Your task to perform on an android device: delete the emails in spam in the gmail app Image 0: 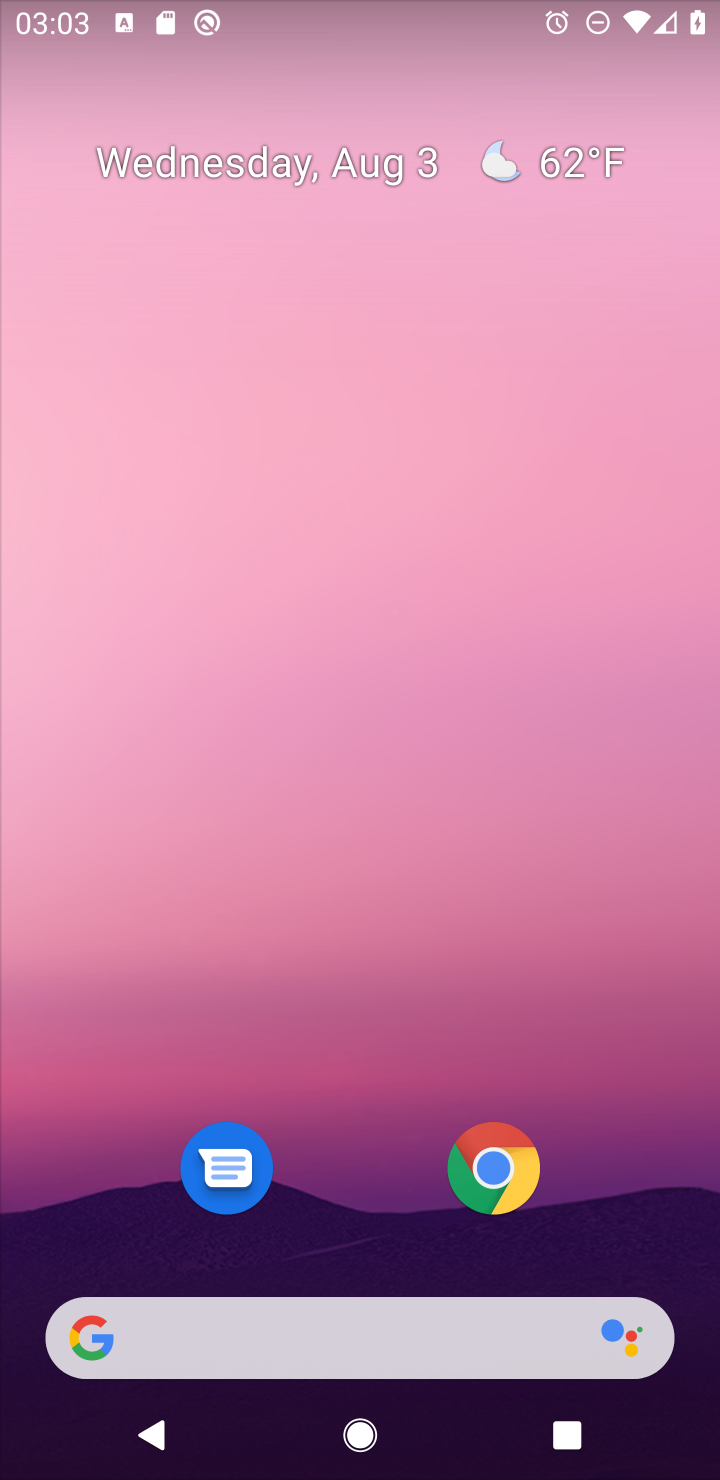
Step 0: drag from (668, 1257) to (615, 303)
Your task to perform on an android device: delete the emails in spam in the gmail app Image 1: 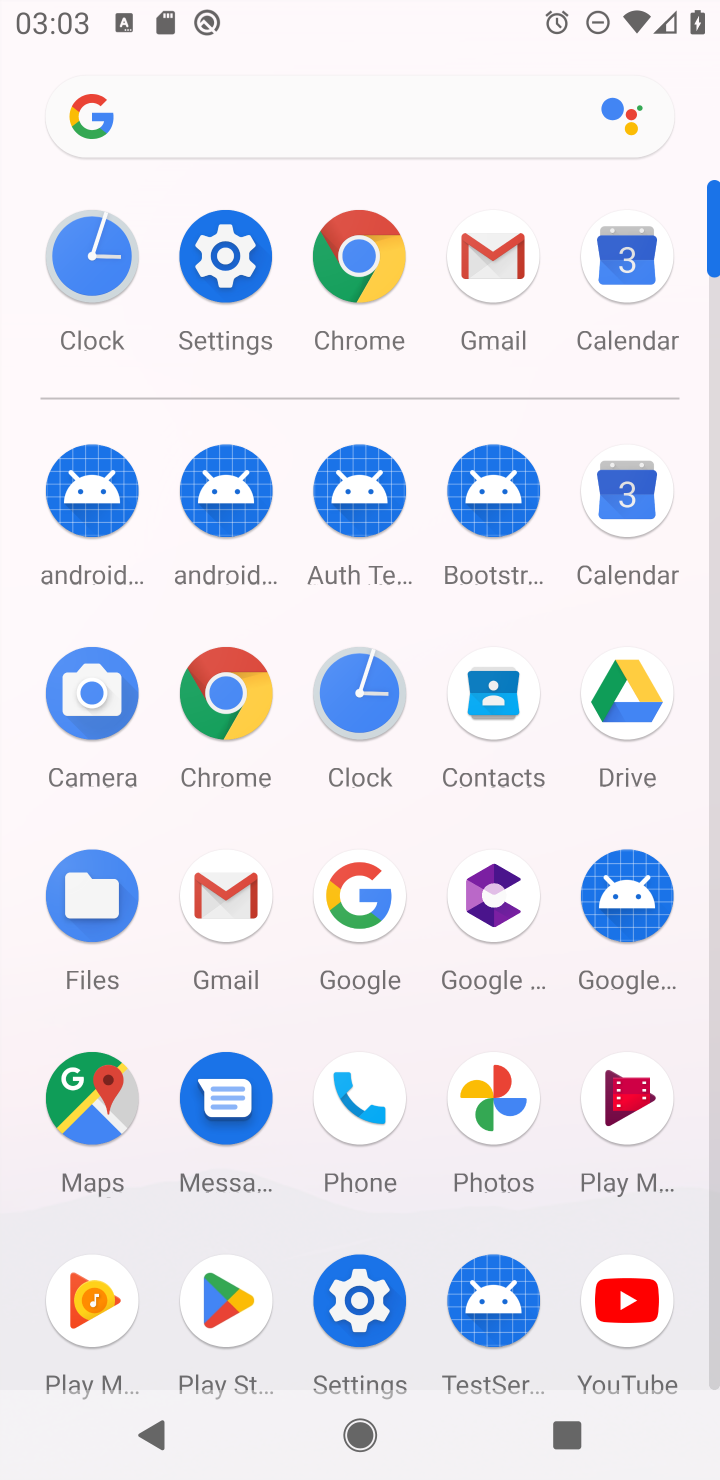
Step 1: click (223, 894)
Your task to perform on an android device: delete the emails in spam in the gmail app Image 2: 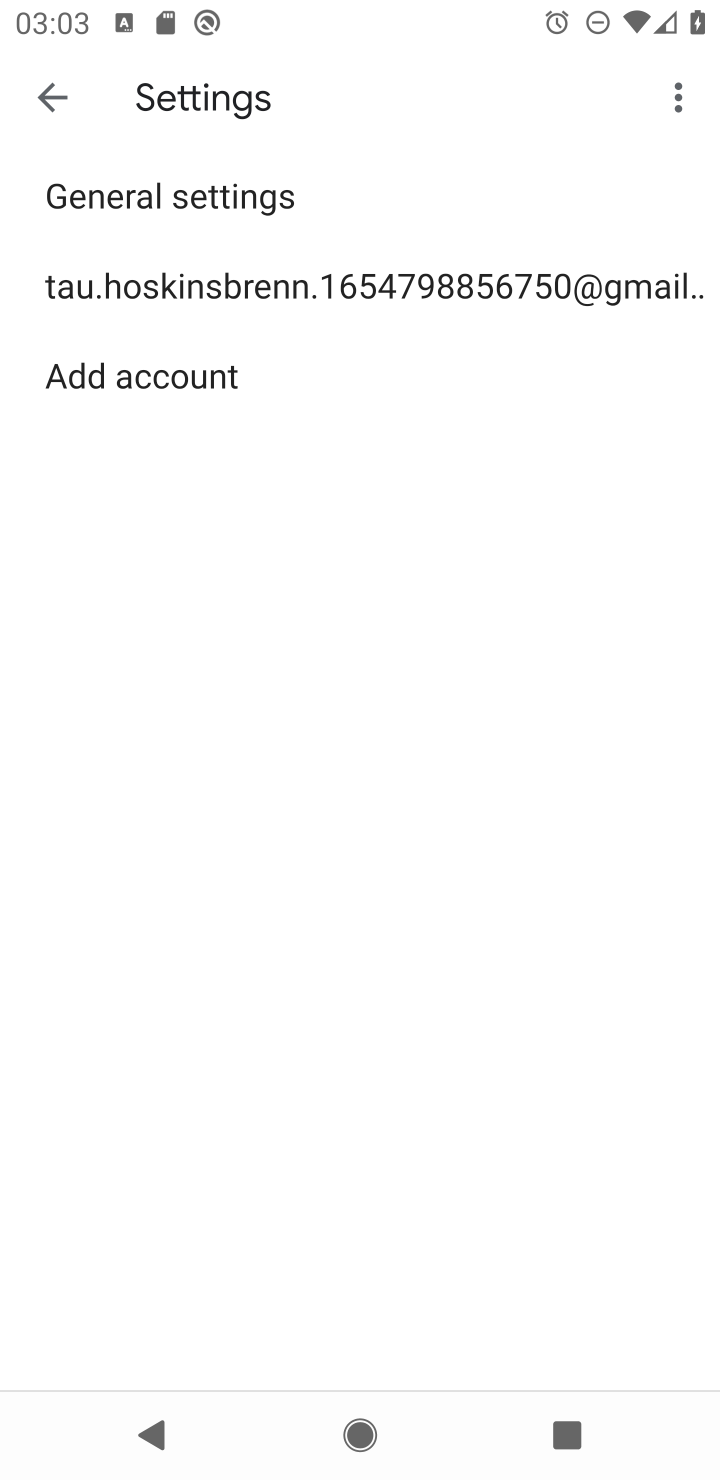
Step 2: press back button
Your task to perform on an android device: delete the emails in spam in the gmail app Image 3: 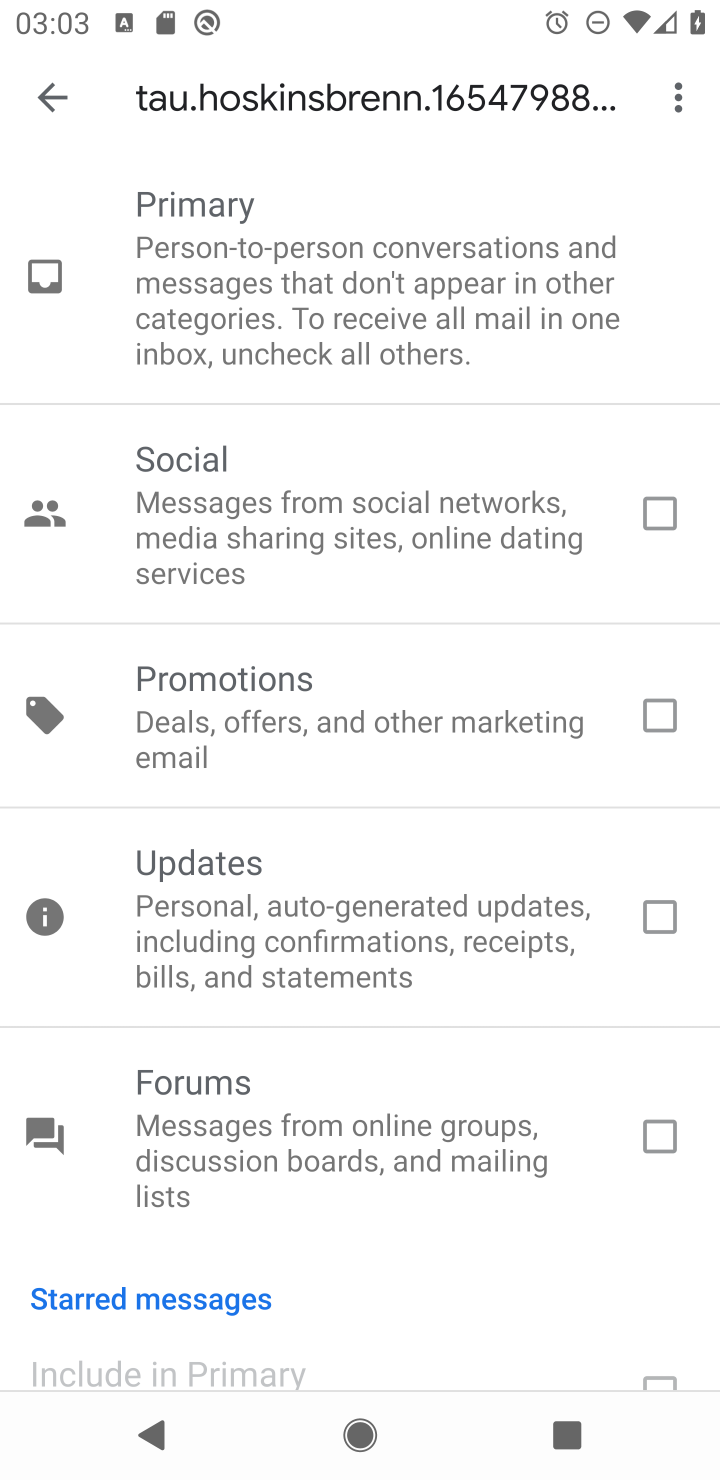
Step 3: press back button
Your task to perform on an android device: delete the emails in spam in the gmail app Image 4: 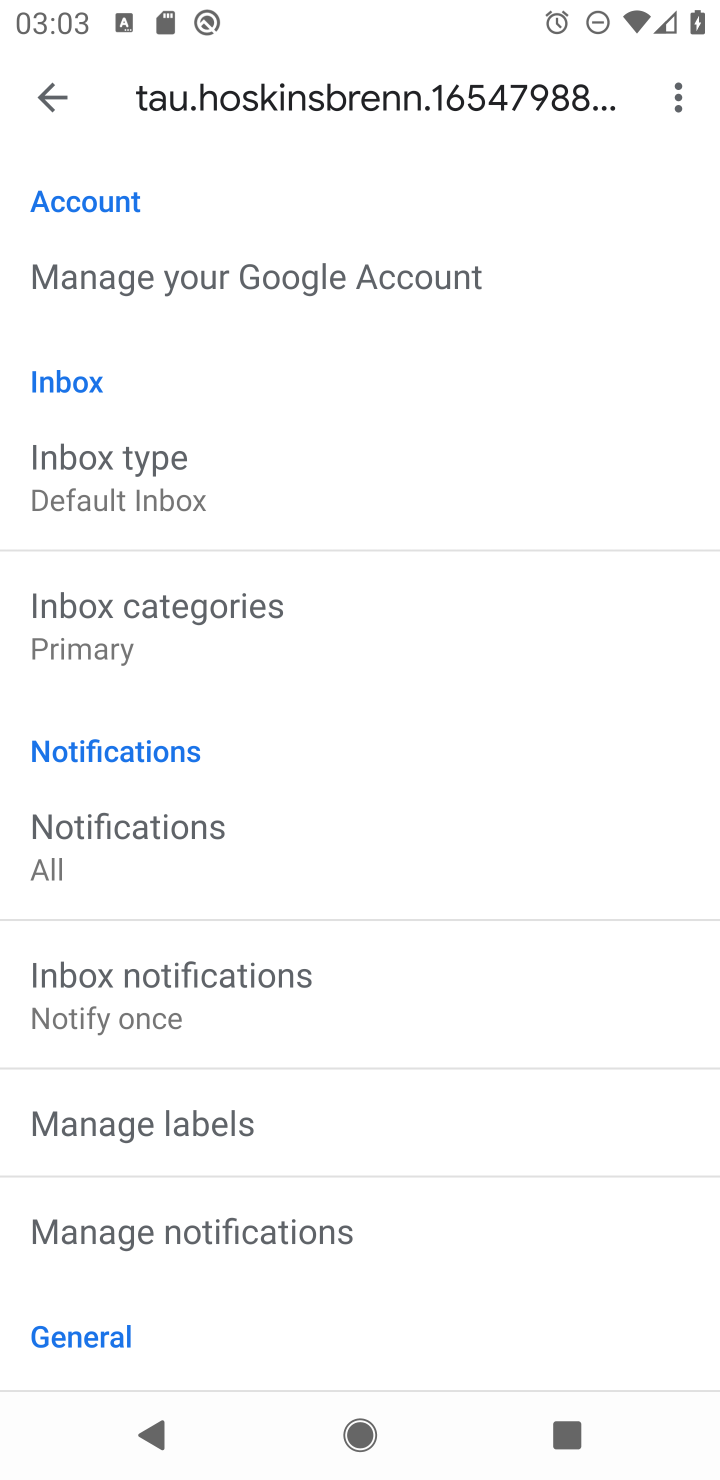
Step 4: press back button
Your task to perform on an android device: delete the emails in spam in the gmail app Image 5: 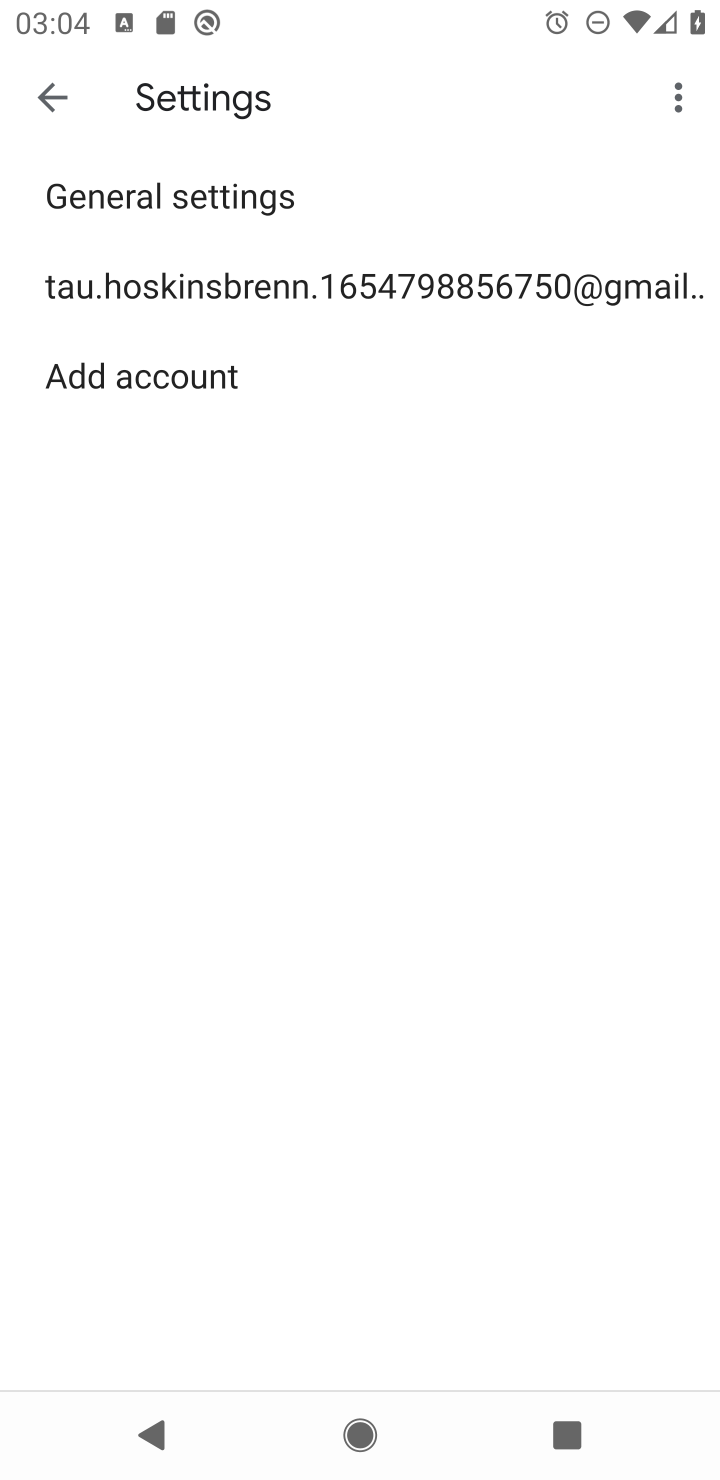
Step 5: press back button
Your task to perform on an android device: delete the emails in spam in the gmail app Image 6: 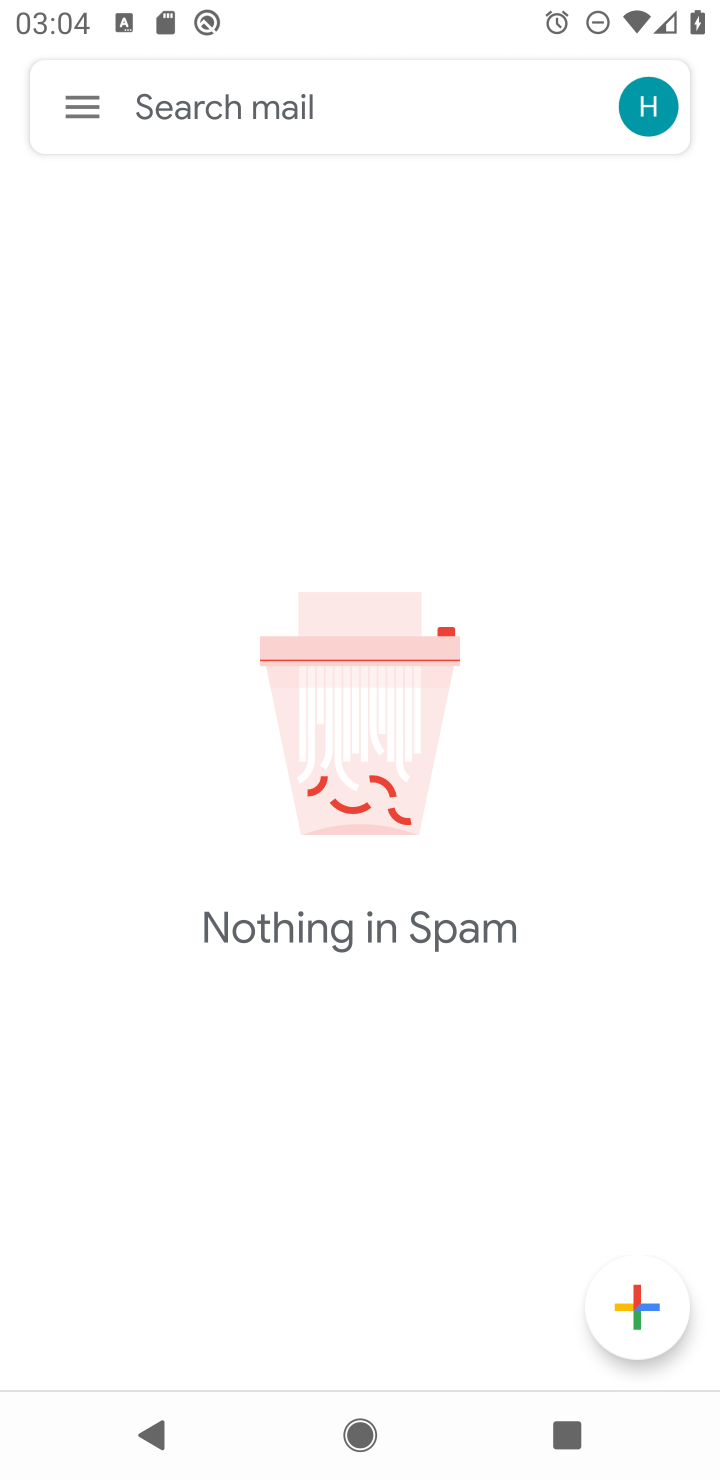
Step 6: click (83, 105)
Your task to perform on an android device: delete the emails in spam in the gmail app Image 7: 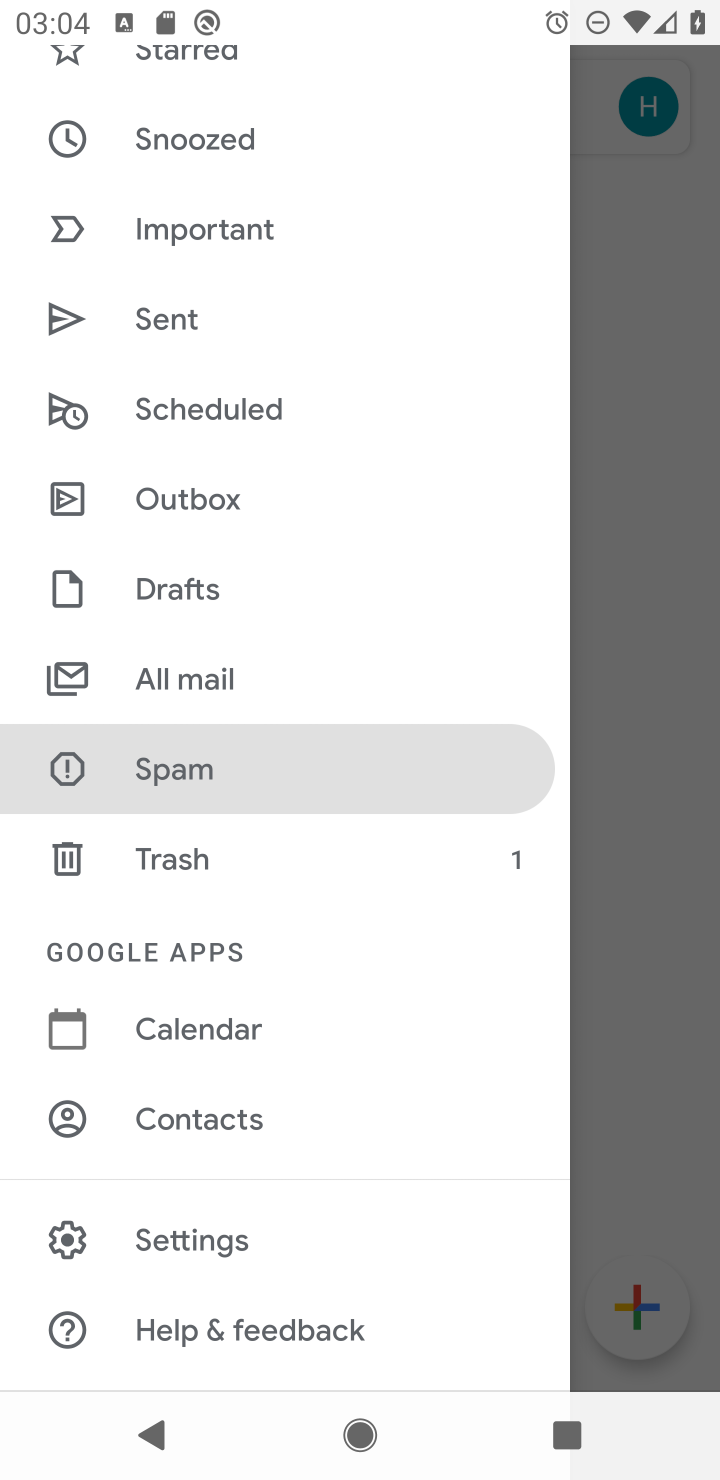
Step 7: click (176, 669)
Your task to perform on an android device: delete the emails in spam in the gmail app Image 8: 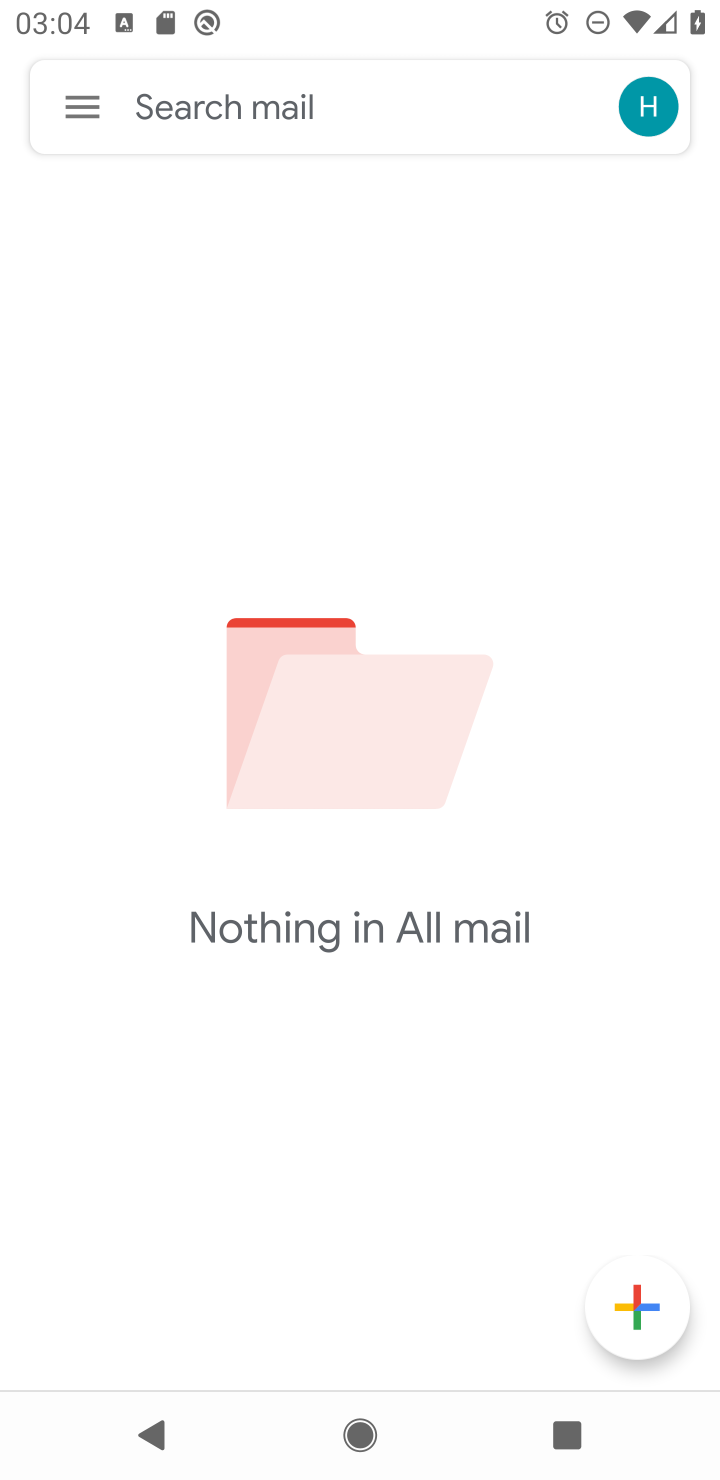
Step 8: task complete